Your task to perform on an android device: Open Google Maps and go to "Timeline" Image 0: 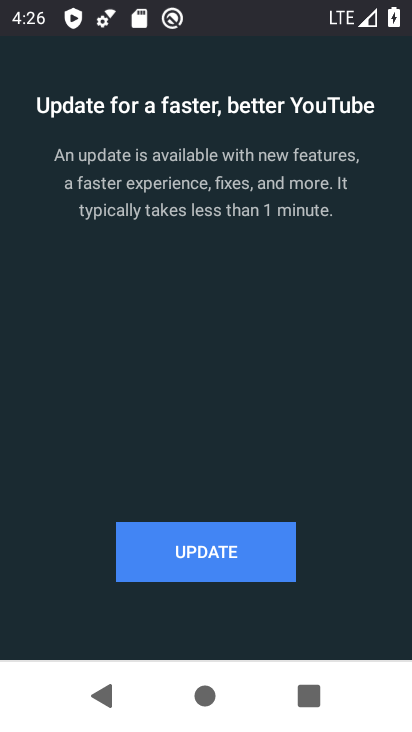
Step 0: press home button
Your task to perform on an android device: Open Google Maps and go to "Timeline" Image 1: 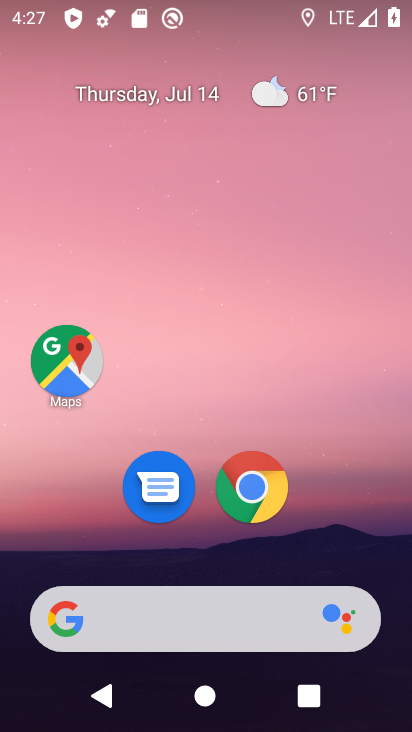
Step 1: drag from (360, 552) to (251, 91)
Your task to perform on an android device: Open Google Maps and go to "Timeline" Image 2: 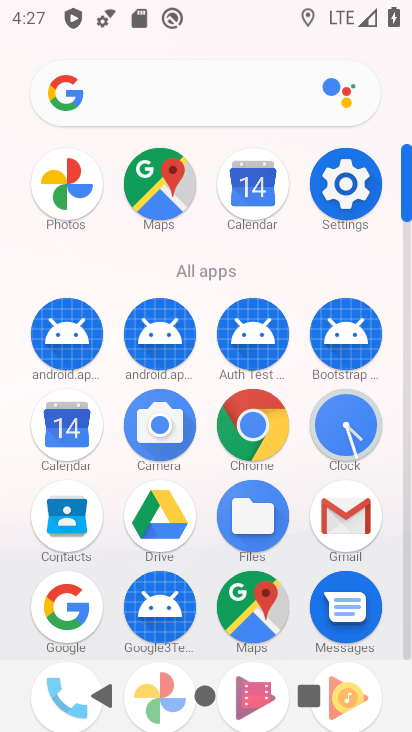
Step 2: click (258, 600)
Your task to perform on an android device: Open Google Maps and go to "Timeline" Image 3: 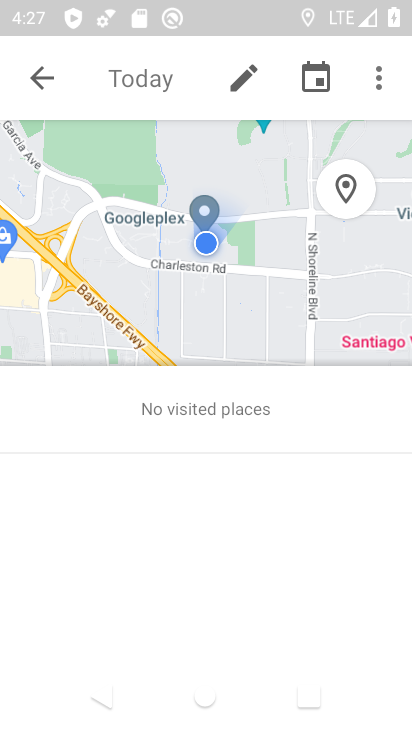
Step 3: task complete